Your task to perform on an android device: check android version Image 0: 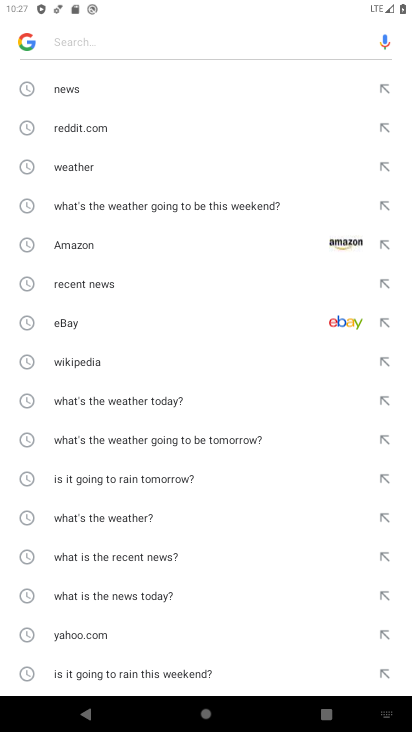
Step 0: press home button
Your task to perform on an android device: check android version Image 1: 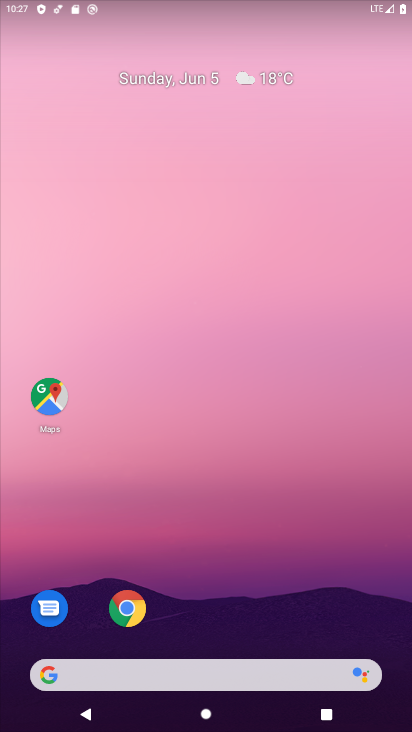
Step 1: drag from (203, 681) to (311, 345)
Your task to perform on an android device: check android version Image 2: 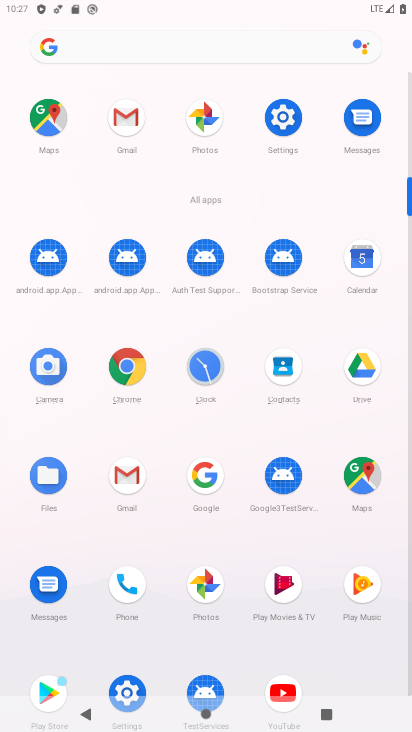
Step 2: click (285, 112)
Your task to perform on an android device: check android version Image 3: 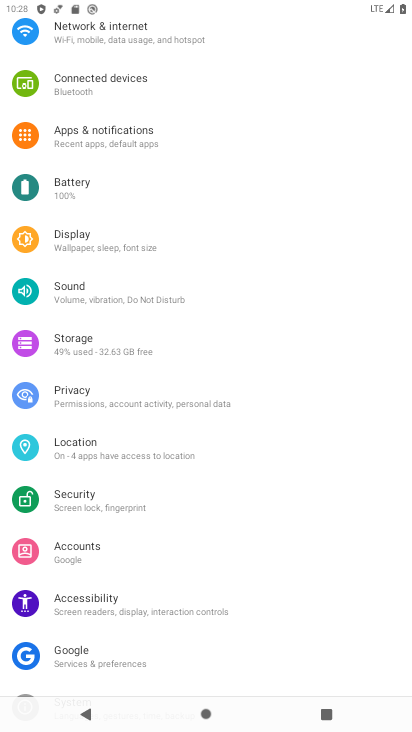
Step 3: drag from (122, 637) to (163, 233)
Your task to perform on an android device: check android version Image 4: 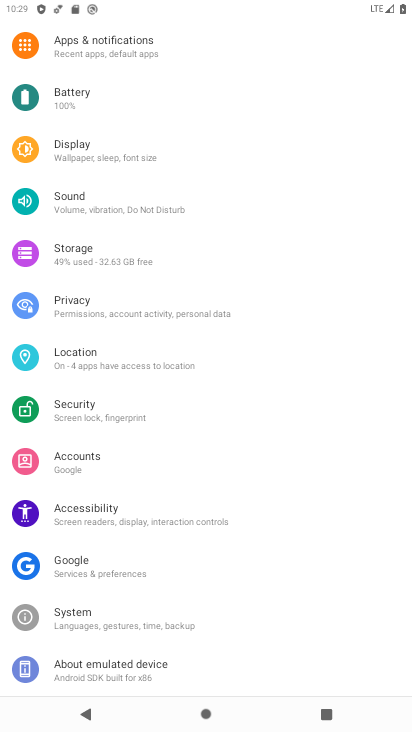
Step 4: click (111, 670)
Your task to perform on an android device: check android version Image 5: 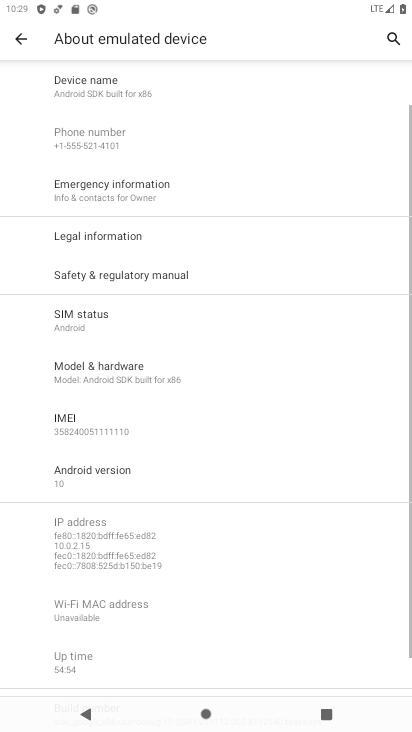
Step 5: click (96, 487)
Your task to perform on an android device: check android version Image 6: 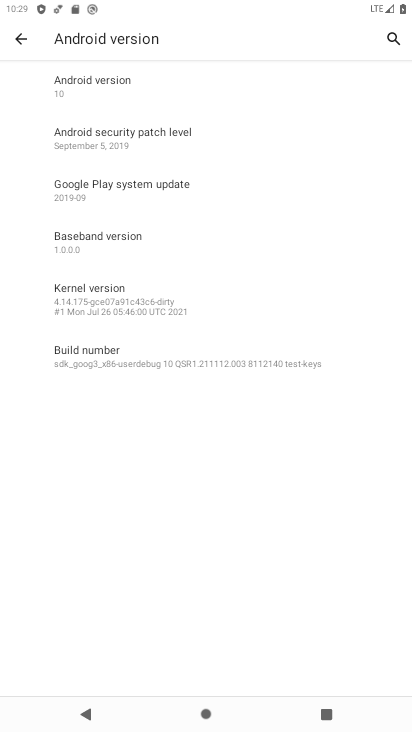
Step 6: task complete